Your task to perform on an android device: turn off javascript in the chrome app Image 0: 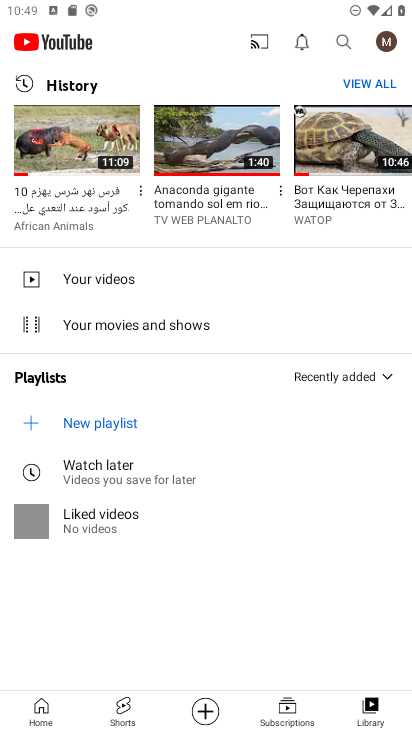
Step 0: press home button
Your task to perform on an android device: turn off javascript in the chrome app Image 1: 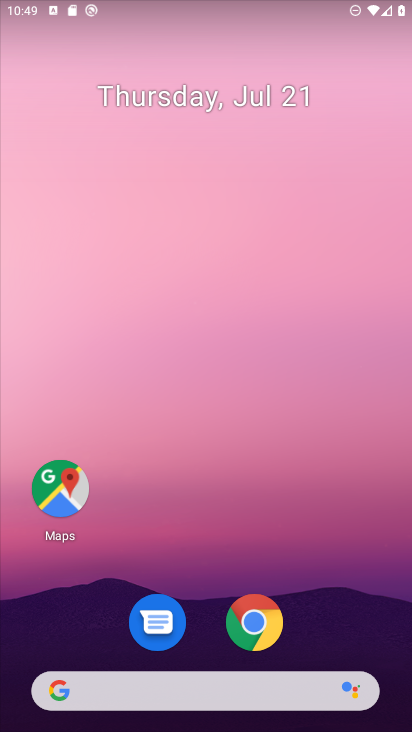
Step 1: click (244, 610)
Your task to perform on an android device: turn off javascript in the chrome app Image 2: 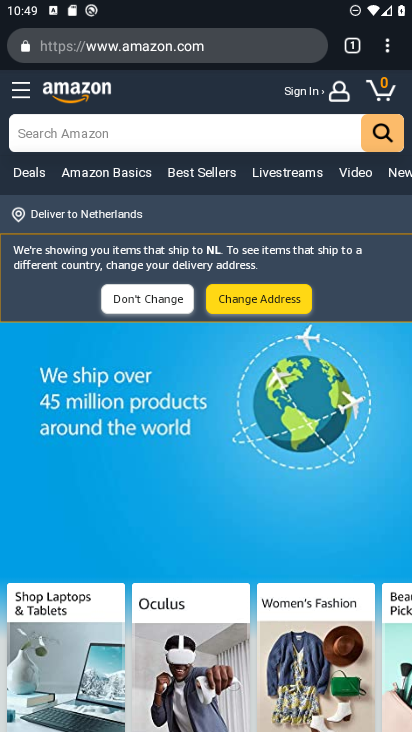
Step 2: click (388, 42)
Your task to perform on an android device: turn off javascript in the chrome app Image 3: 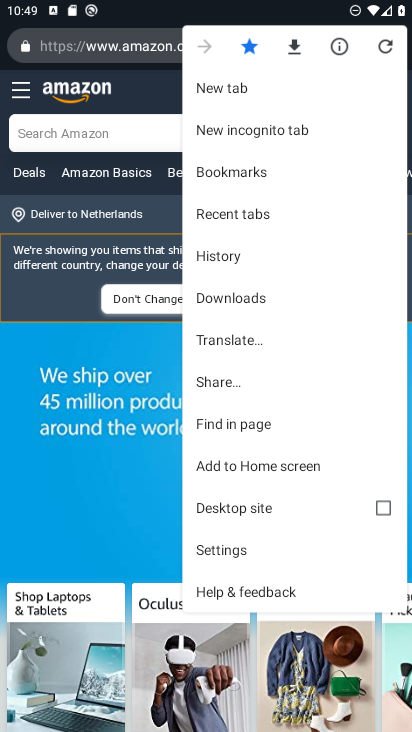
Step 3: click (247, 552)
Your task to perform on an android device: turn off javascript in the chrome app Image 4: 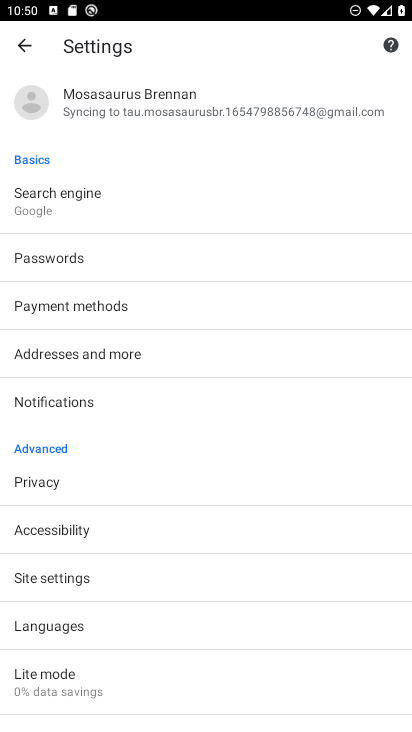
Step 4: click (65, 567)
Your task to perform on an android device: turn off javascript in the chrome app Image 5: 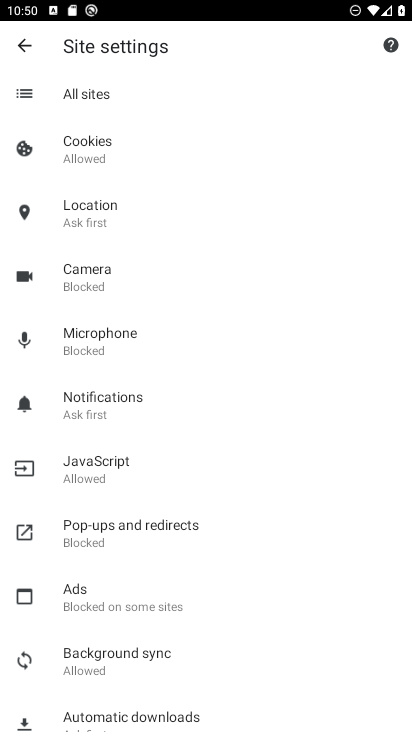
Step 5: click (114, 469)
Your task to perform on an android device: turn off javascript in the chrome app Image 6: 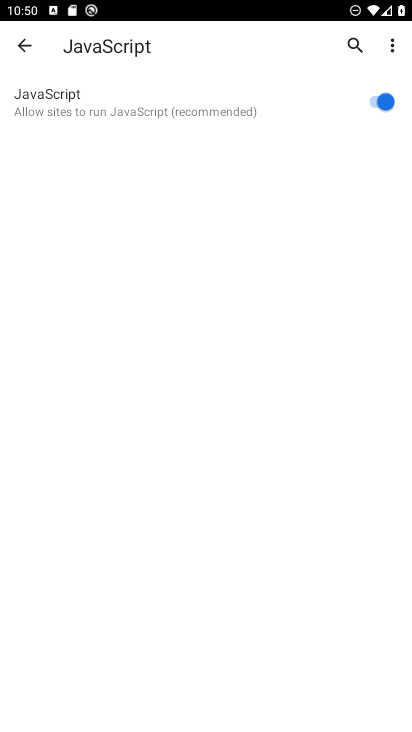
Step 6: click (381, 94)
Your task to perform on an android device: turn off javascript in the chrome app Image 7: 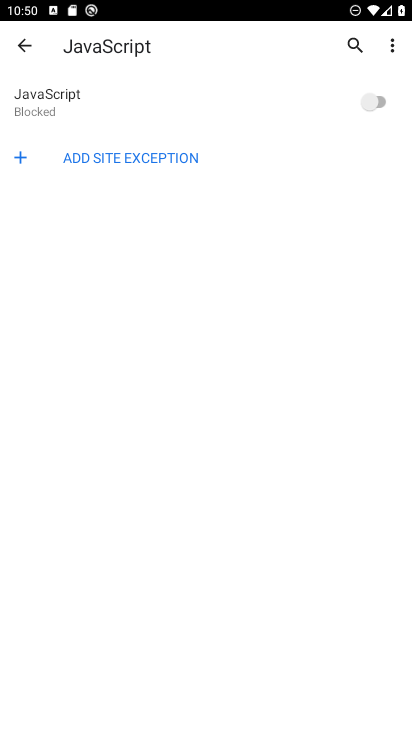
Step 7: task complete